Your task to perform on an android device: turn on showing notifications on the lock screen Image 0: 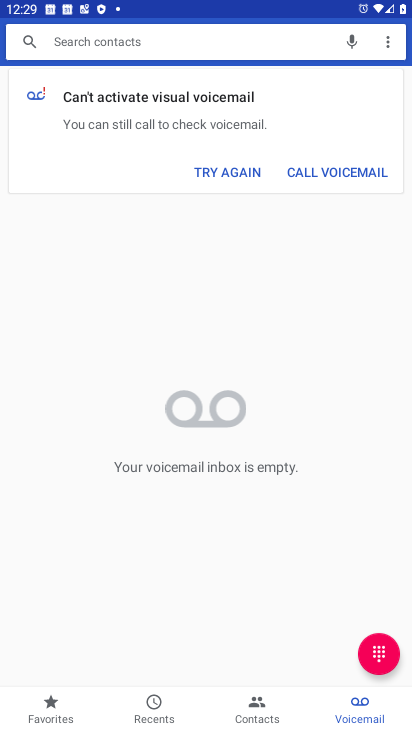
Step 0: press home button
Your task to perform on an android device: turn on showing notifications on the lock screen Image 1: 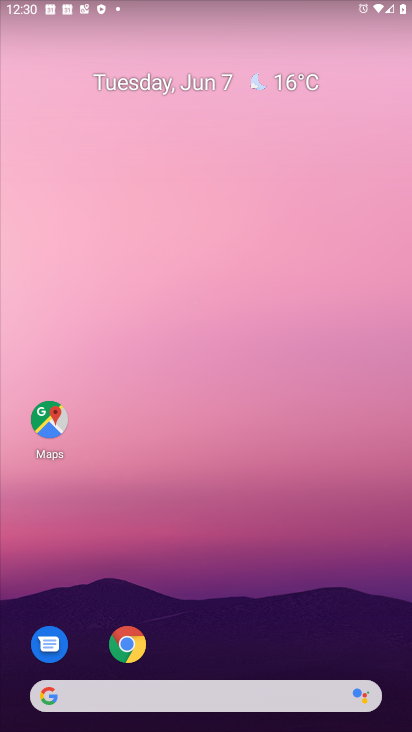
Step 1: drag from (29, 487) to (206, 160)
Your task to perform on an android device: turn on showing notifications on the lock screen Image 2: 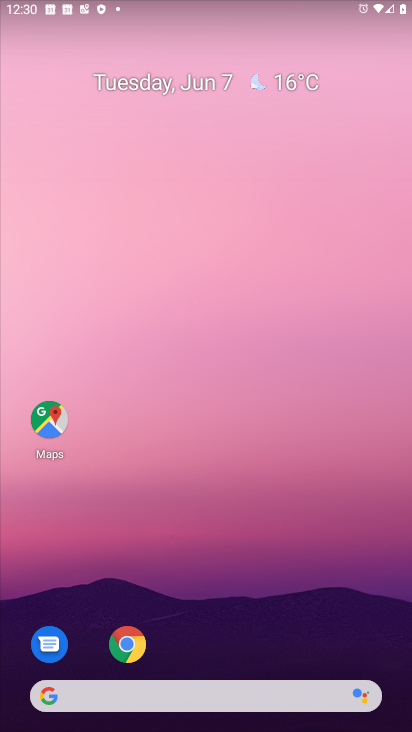
Step 2: drag from (65, 515) to (235, 121)
Your task to perform on an android device: turn on showing notifications on the lock screen Image 3: 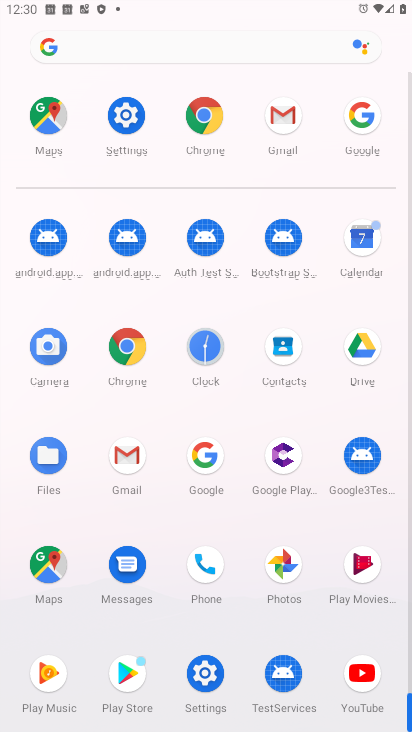
Step 3: click (128, 117)
Your task to perform on an android device: turn on showing notifications on the lock screen Image 4: 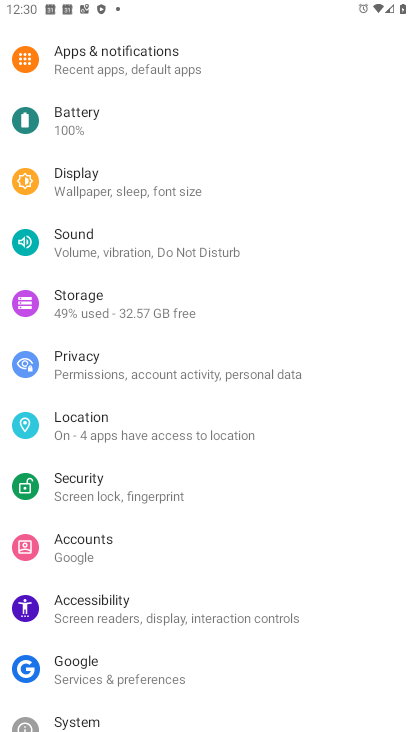
Step 4: click (132, 82)
Your task to perform on an android device: turn on showing notifications on the lock screen Image 5: 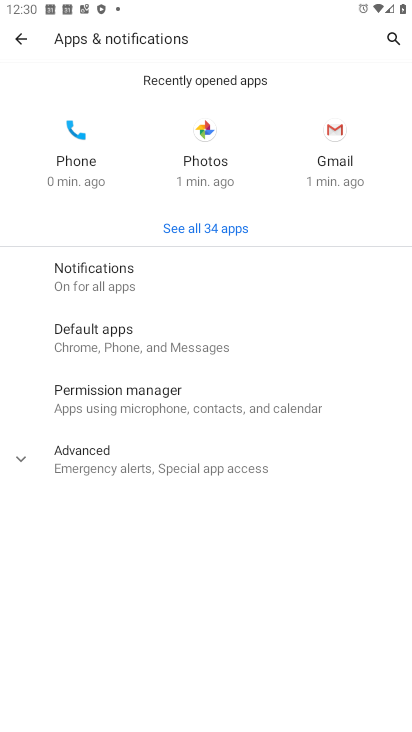
Step 5: click (110, 271)
Your task to perform on an android device: turn on showing notifications on the lock screen Image 6: 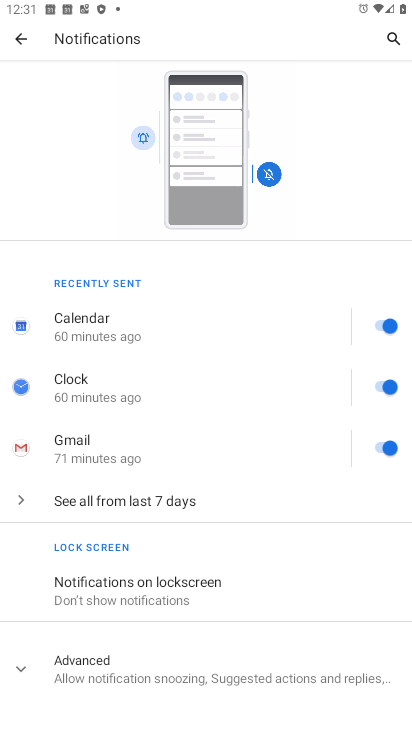
Step 6: click (115, 597)
Your task to perform on an android device: turn on showing notifications on the lock screen Image 7: 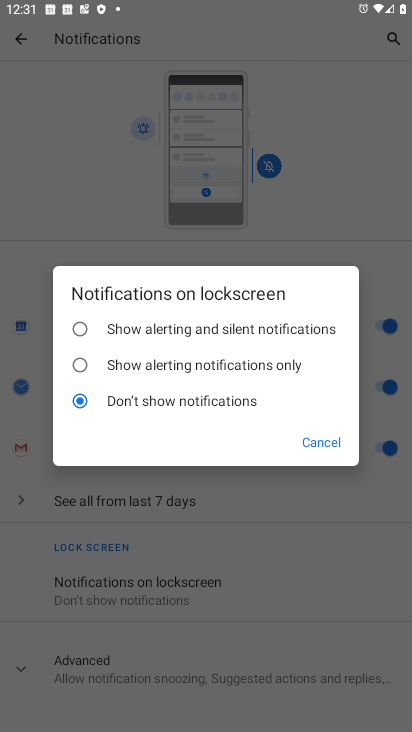
Step 7: click (83, 332)
Your task to perform on an android device: turn on showing notifications on the lock screen Image 8: 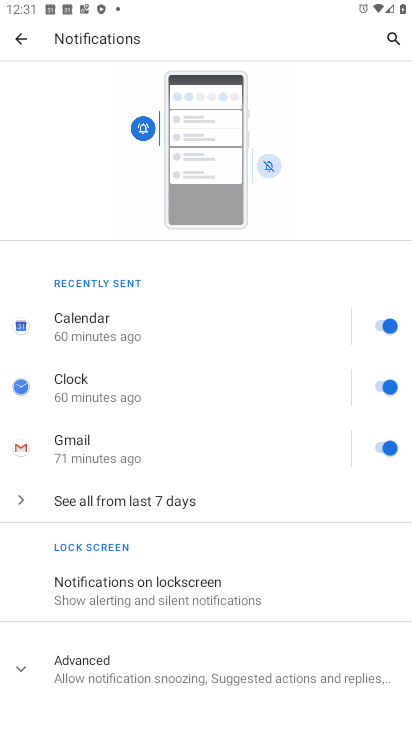
Step 8: task complete